Your task to perform on an android device: Open location settings Image 0: 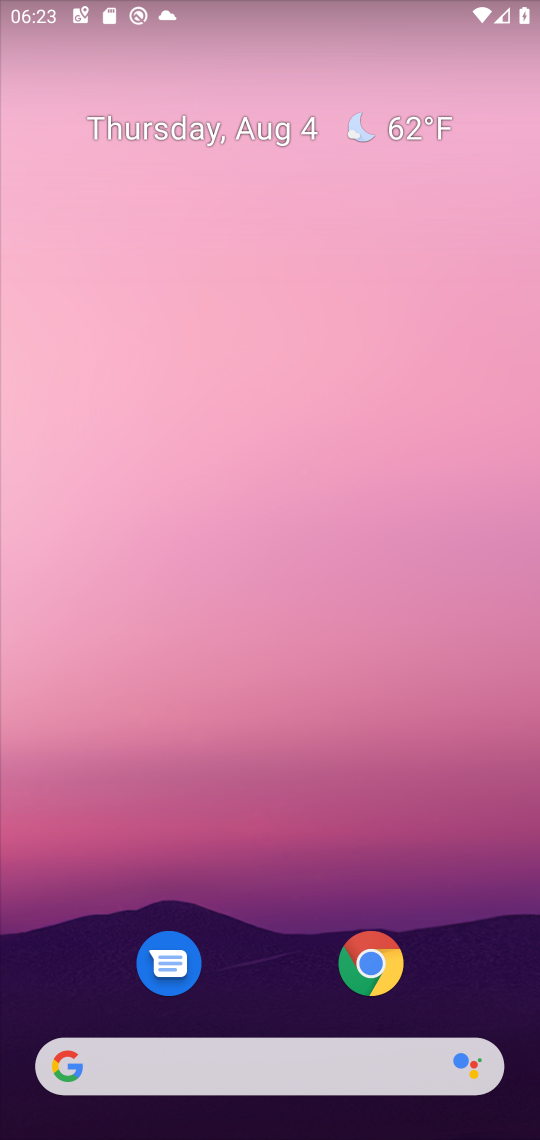
Step 0: press home button
Your task to perform on an android device: Open location settings Image 1: 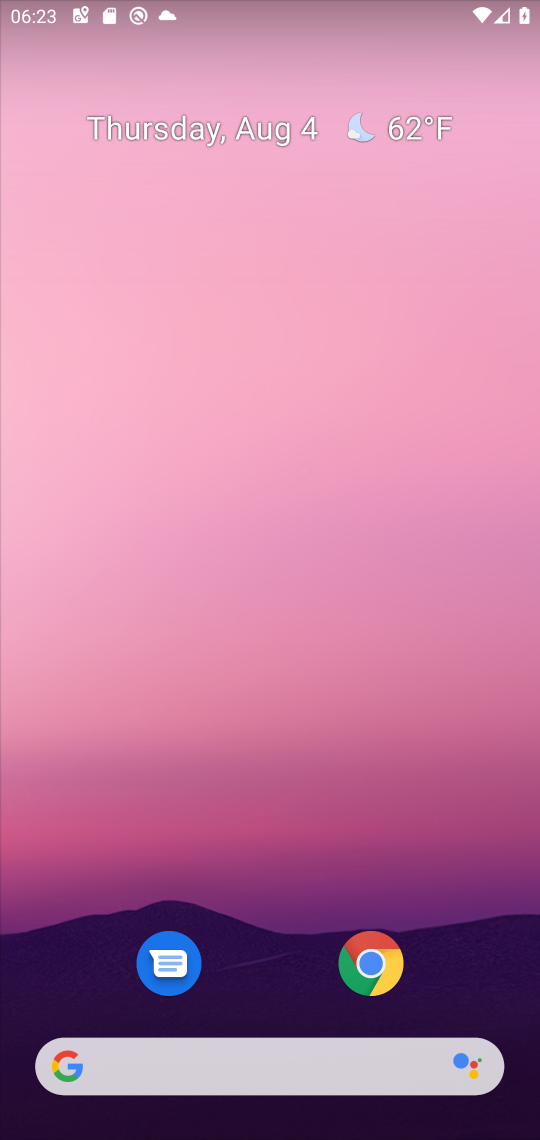
Step 1: drag from (337, 780) to (243, 19)
Your task to perform on an android device: Open location settings Image 2: 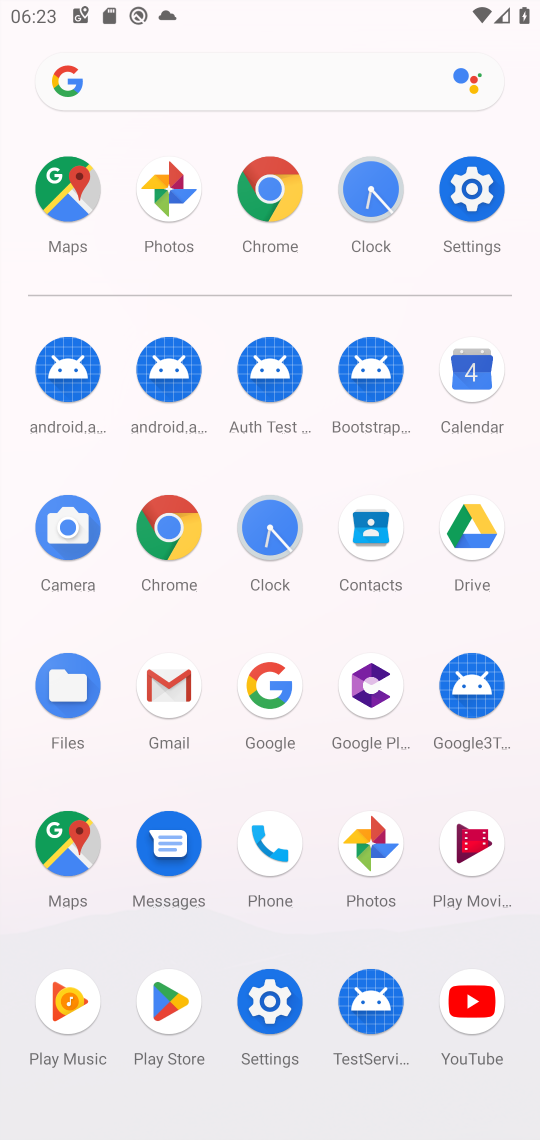
Step 2: click (467, 194)
Your task to perform on an android device: Open location settings Image 3: 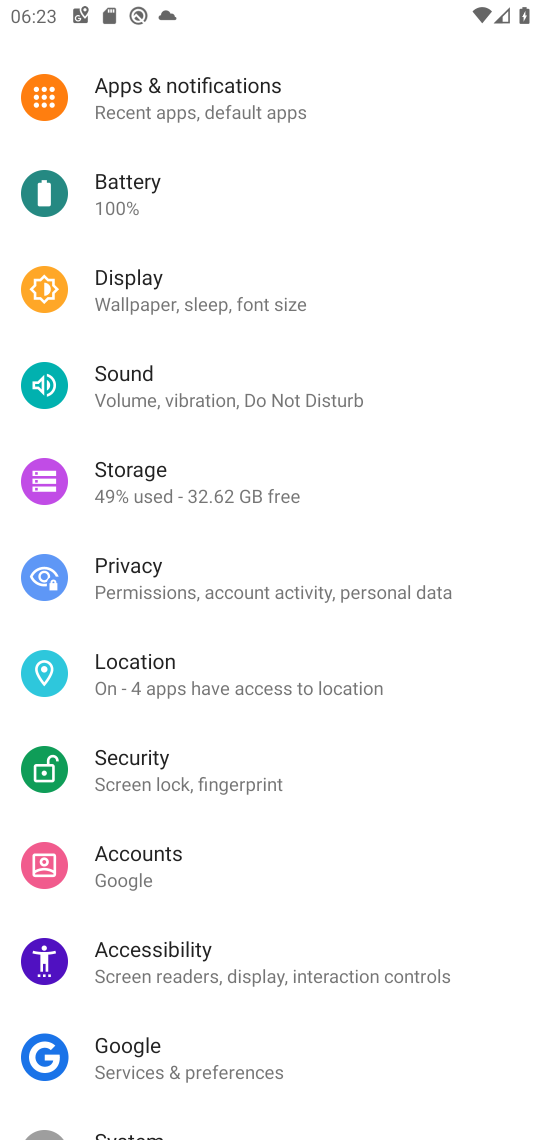
Step 3: click (149, 652)
Your task to perform on an android device: Open location settings Image 4: 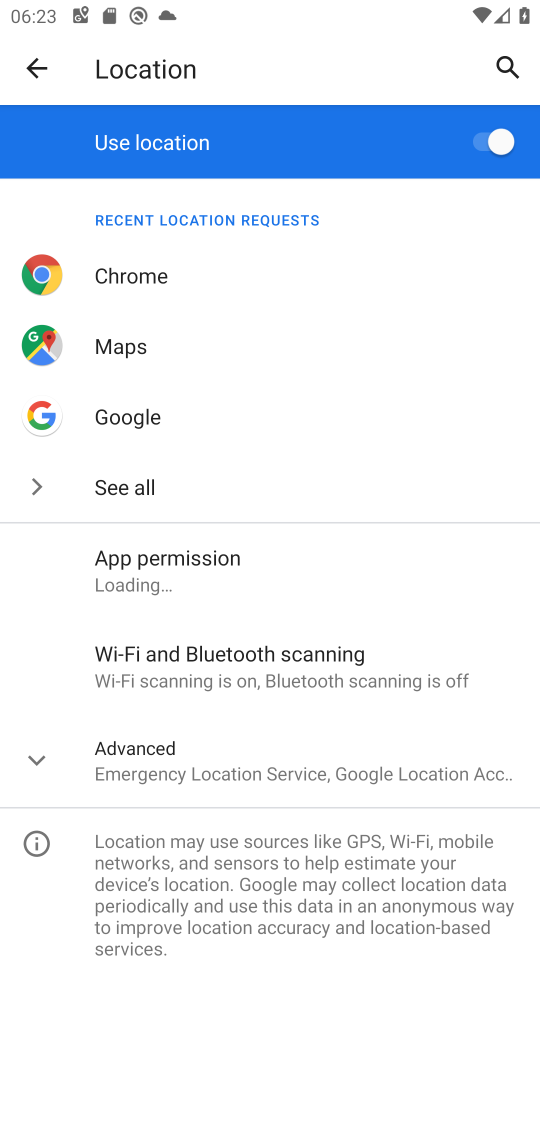
Step 4: task complete